Your task to perform on an android device: Go to privacy settings Image 0: 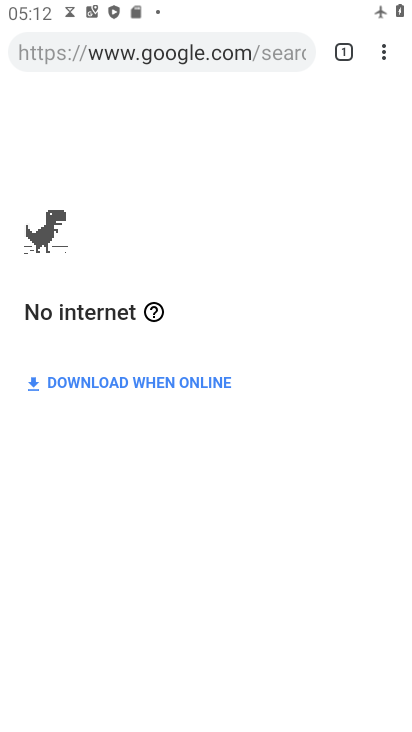
Step 0: drag from (385, 50) to (214, 579)
Your task to perform on an android device: Go to privacy settings Image 1: 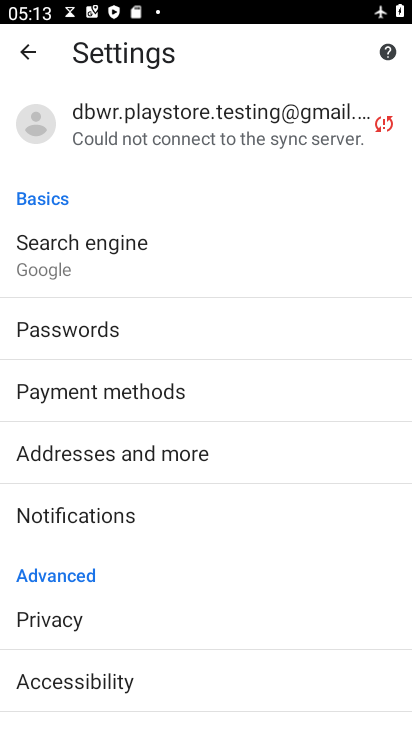
Step 1: click (65, 612)
Your task to perform on an android device: Go to privacy settings Image 2: 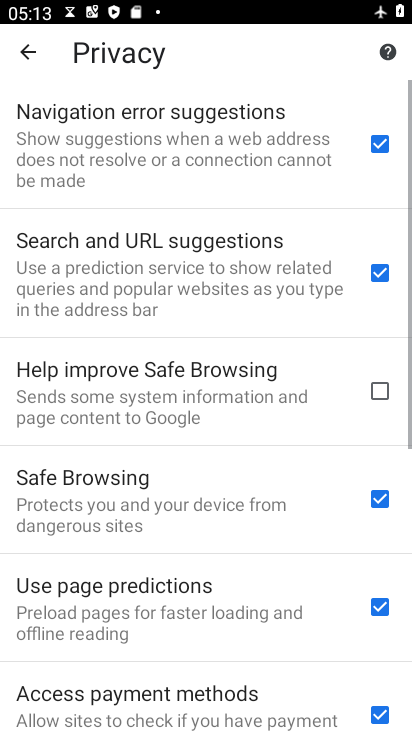
Step 2: task complete